Your task to perform on an android device: Open Reddit.com Image 0: 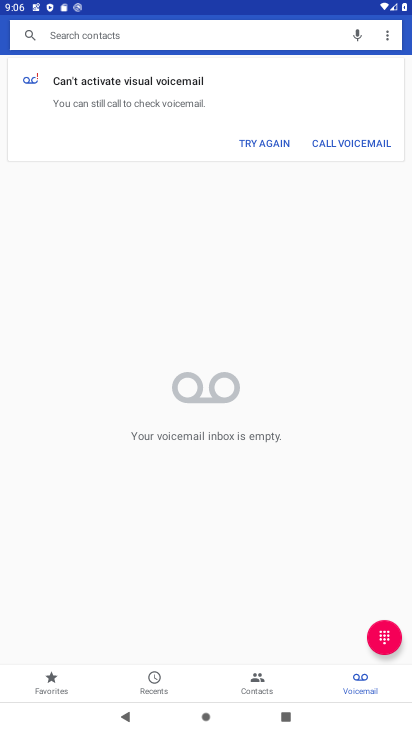
Step 0: press home button
Your task to perform on an android device: Open Reddit.com Image 1: 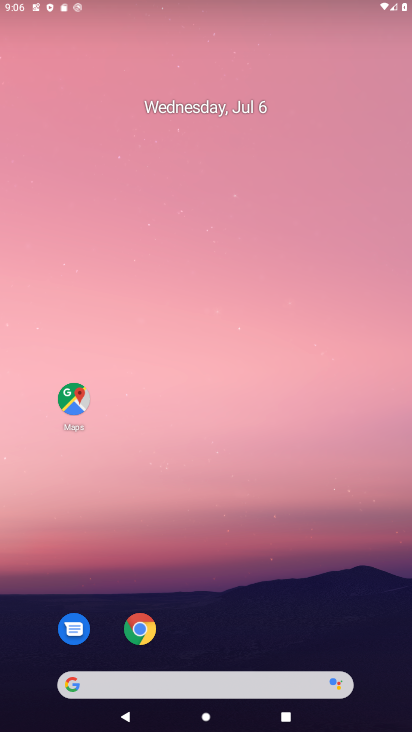
Step 1: drag from (263, 611) to (304, 30)
Your task to perform on an android device: Open Reddit.com Image 2: 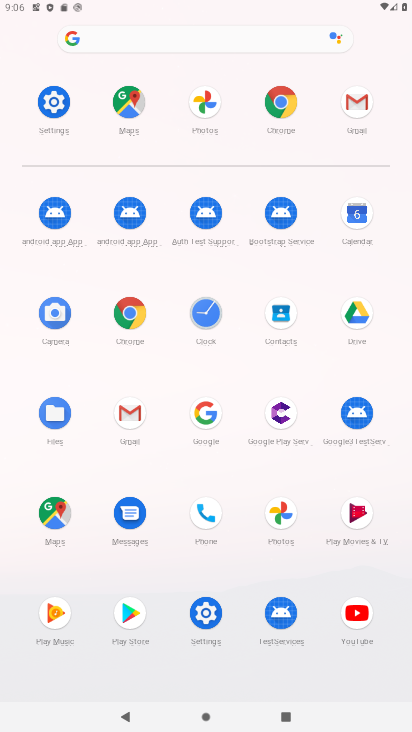
Step 2: click (206, 413)
Your task to perform on an android device: Open Reddit.com Image 3: 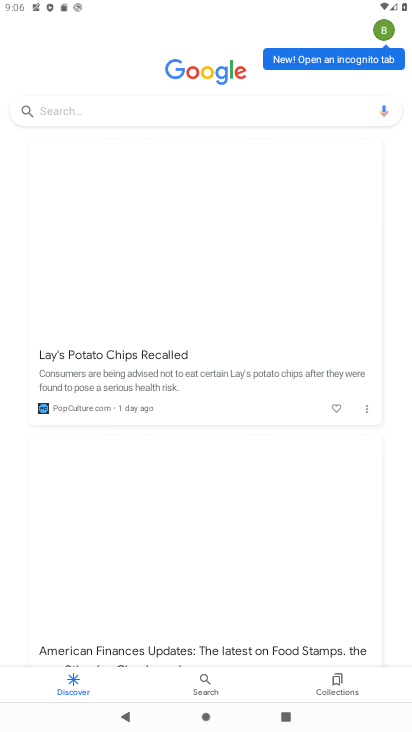
Step 3: click (134, 113)
Your task to perform on an android device: Open Reddit.com Image 4: 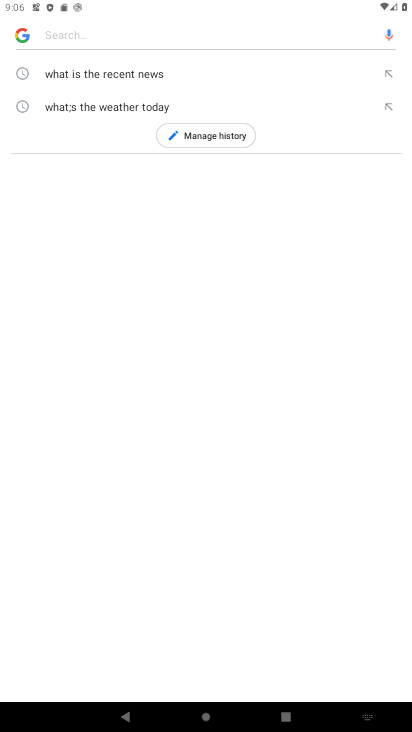
Step 4: type "reddit.com"
Your task to perform on an android device: Open Reddit.com Image 5: 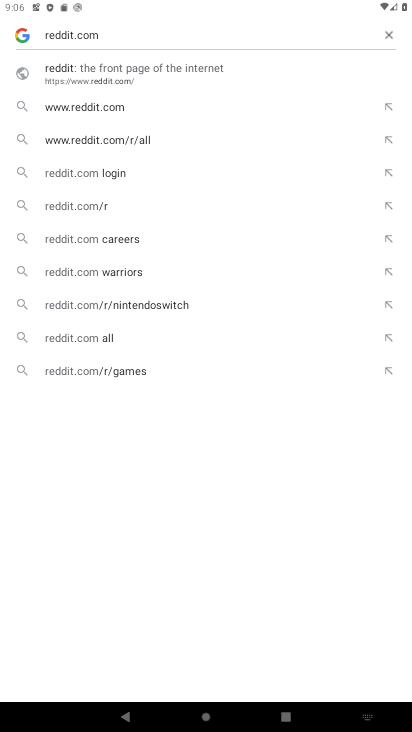
Step 5: click (149, 68)
Your task to perform on an android device: Open Reddit.com Image 6: 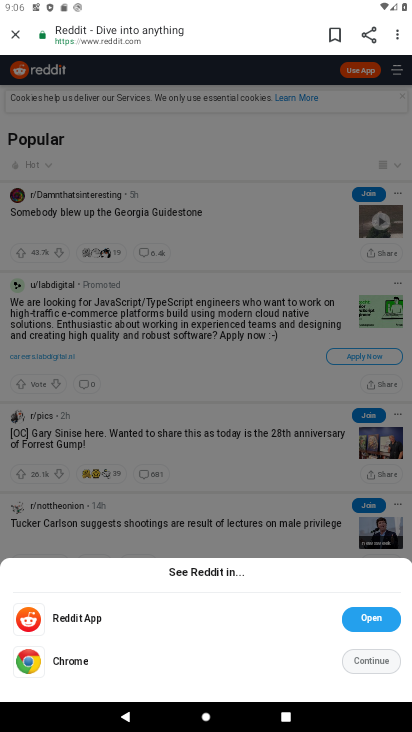
Step 6: task complete